Your task to perform on an android device: Go to Yahoo.com Image 0: 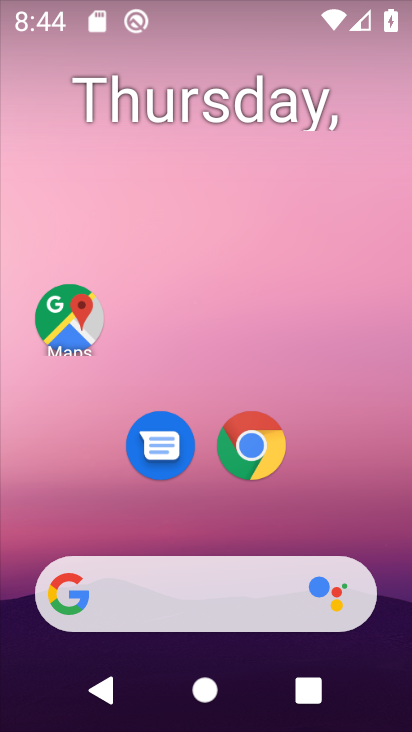
Step 0: click (233, 443)
Your task to perform on an android device: Go to Yahoo.com Image 1: 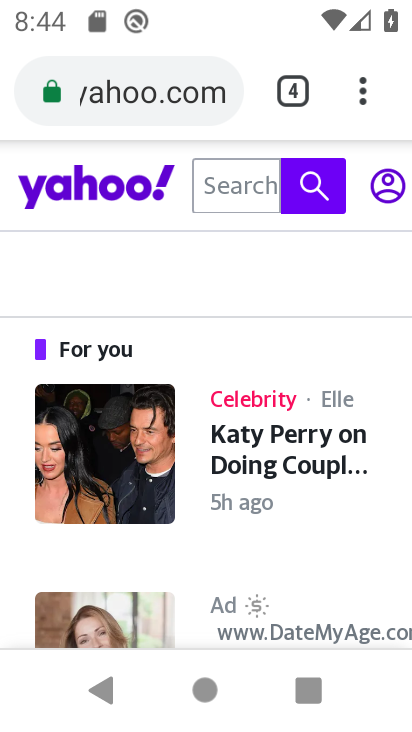
Step 1: task complete